Your task to perform on an android device: Open the calendar app, open the side menu, and click the "Day" option Image 0: 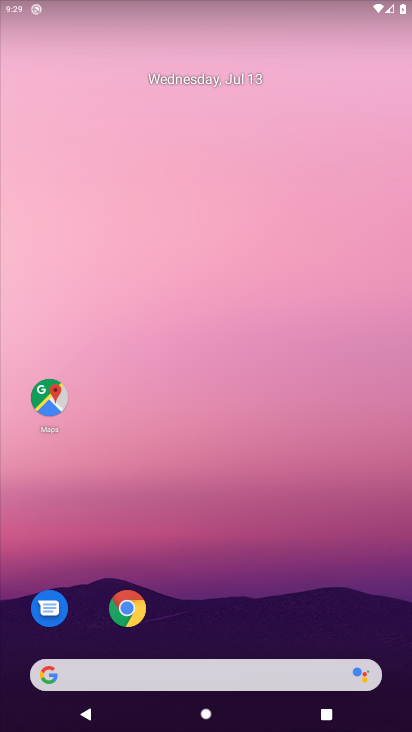
Step 0: drag from (108, 503) to (241, 86)
Your task to perform on an android device: Open the calendar app, open the side menu, and click the "Day" option Image 1: 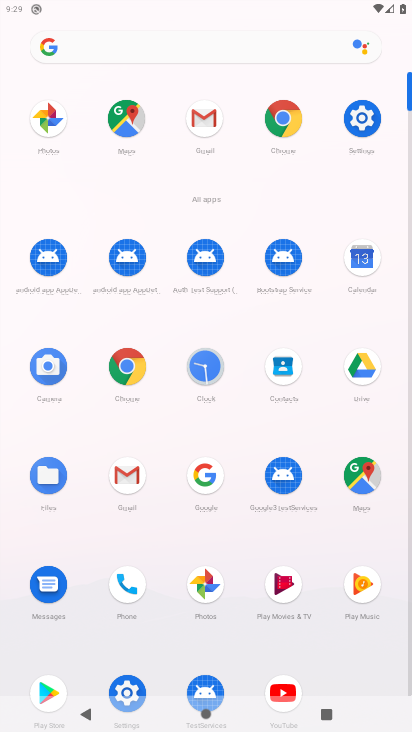
Step 1: click (358, 262)
Your task to perform on an android device: Open the calendar app, open the side menu, and click the "Day" option Image 2: 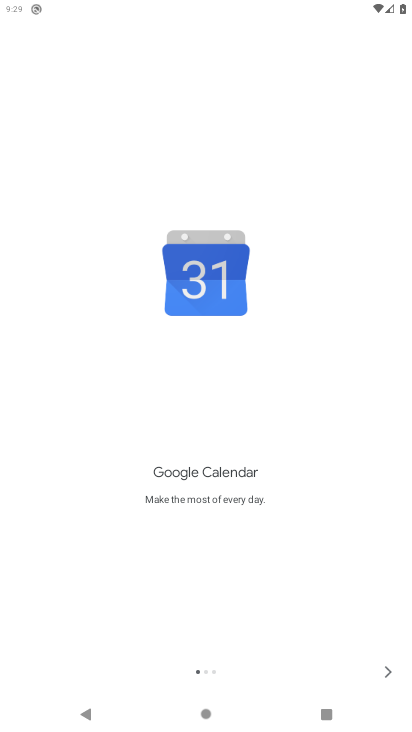
Step 2: click (385, 675)
Your task to perform on an android device: Open the calendar app, open the side menu, and click the "Day" option Image 3: 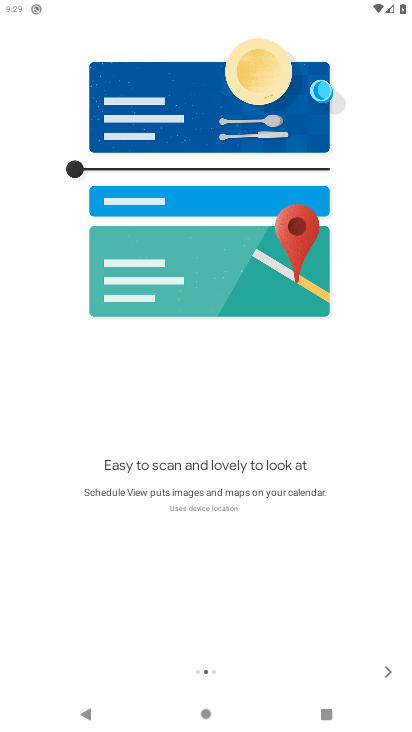
Step 3: click (387, 674)
Your task to perform on an android device: Open the calendar app, open the side menu, and click the "Day" option Image 4: 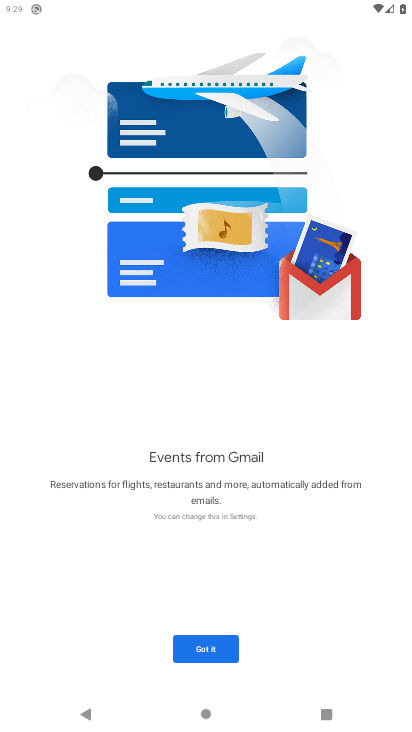
Step 4: click (207, 641)
Your task to perform on an android device: Open the calendar app, open the side menu, and click the "Day" option Image 5: 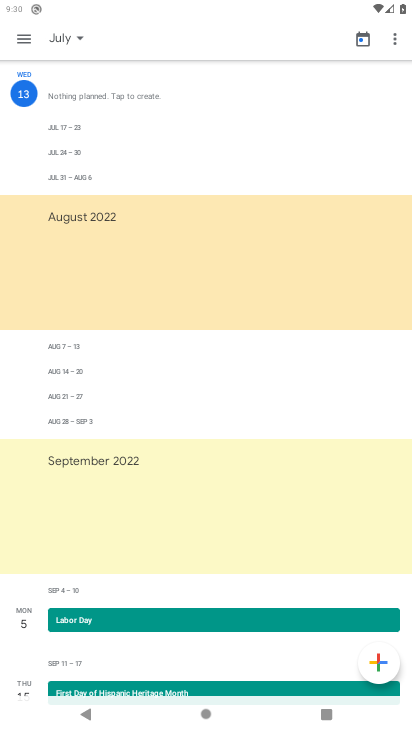
Step 5: click (31, 47)
Your task to perform on an android device: Open the calendar app, open the side menu, and click the "Day" option Image 6: 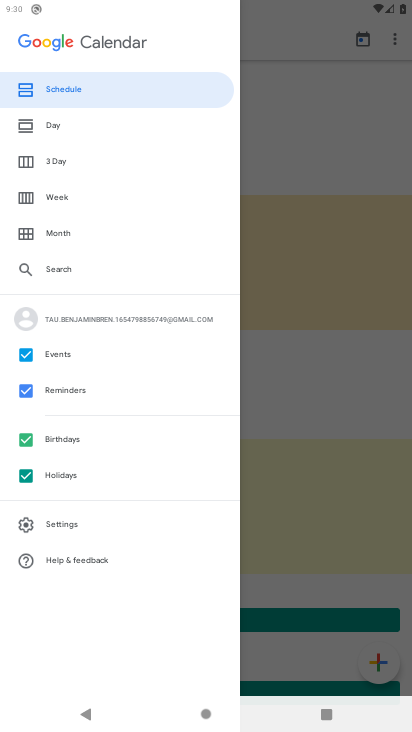
Step 6: click (63, 121)
Your task to perform on an android device: Open the calendar app, open the side menu, and click the "Day" option Image 7: 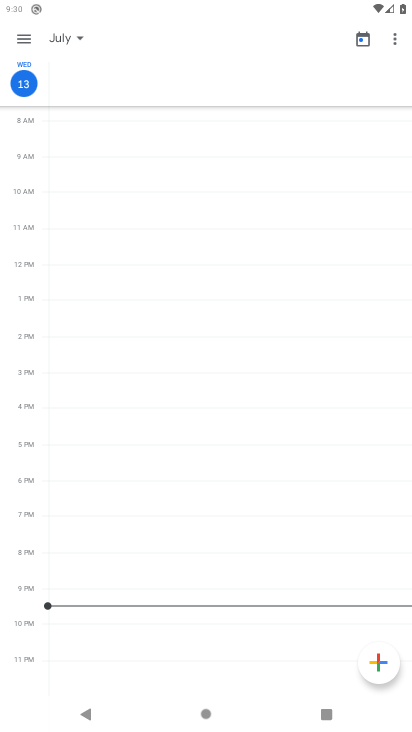
Step 7: task complete